Your task to perform on an android device: Open the calendar and show me this week's events Image 0: 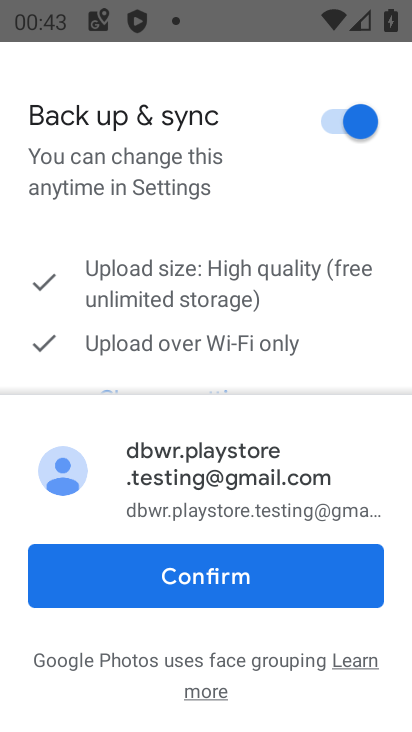
Step 0: press home button
Your task to perform on an android device: Open the calendar and show me this week's events Image 1: 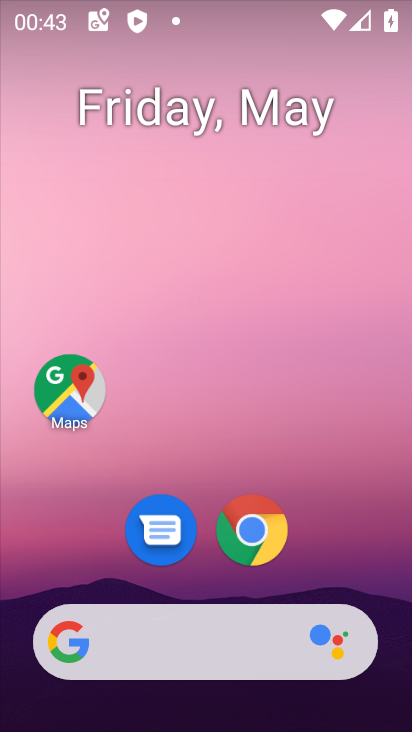
Step 1: drag from (341, 549) to (204, 130)
Your task to perform on an android device: Open the calendar and show me this week's events Image 2: 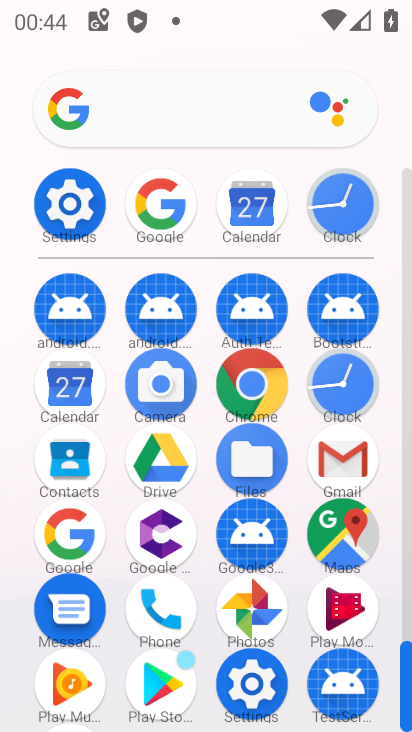
Step 2: click (252, 205)
Your task to perform on an android device: Open the calendar and show me this week's events Image 3: 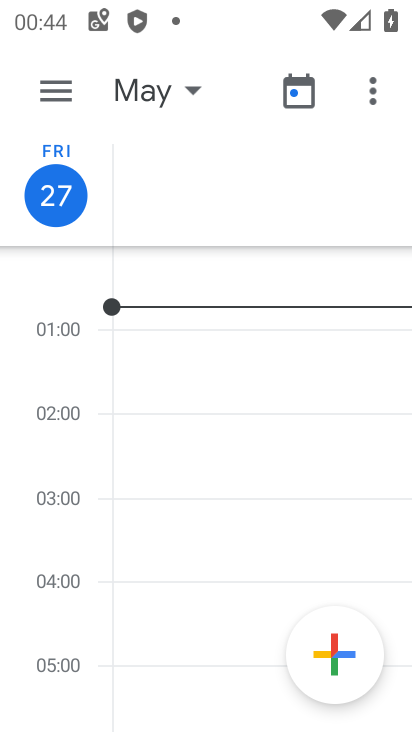
Step 3: click (296, 98)
Your task to perform on an android device: Open the calendar and show me this week's events Image 4: 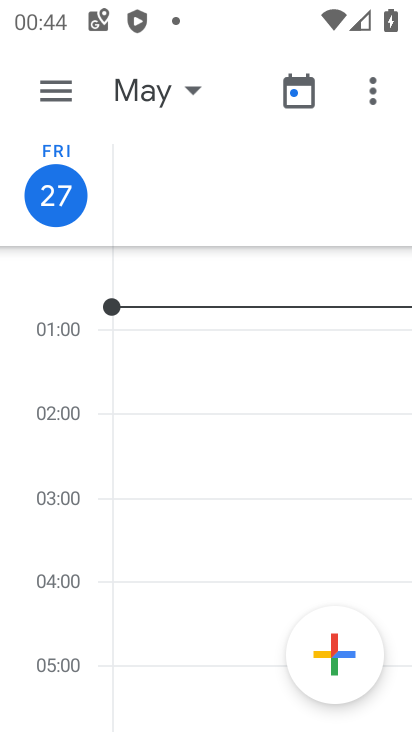
Step 4: click (78, 89)
Your task to perform on an android device: Open the calendar and show me this week's events Image 5: 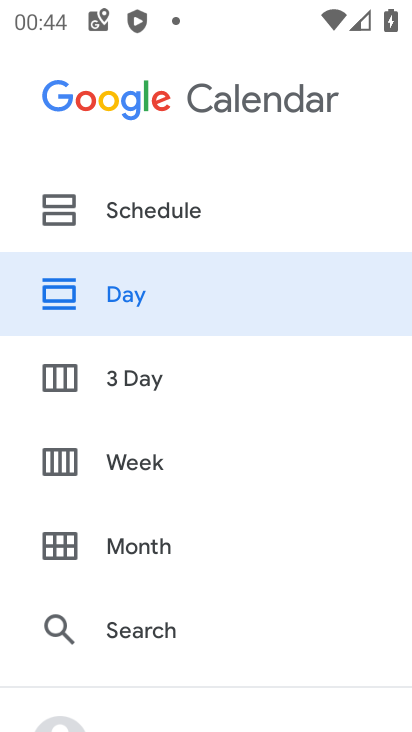
Step 5: click (148, 220)
Your task to perform on an android device: Open the calendar and show me this week's events Image 6: 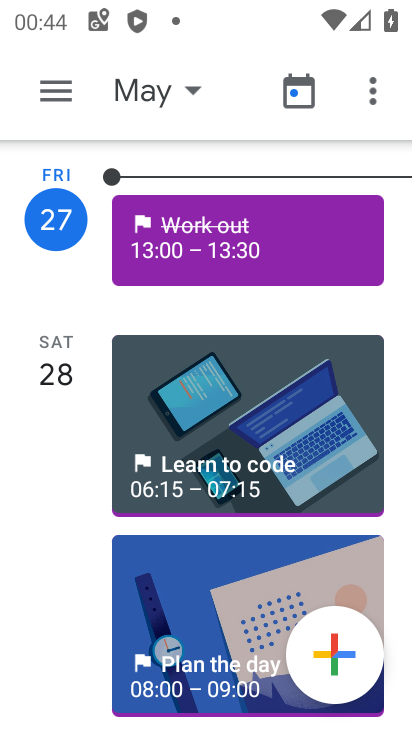
Step 6: task complete